Your task to perform on an android device: Search for 8K TVs on Best Buy. Image 0: 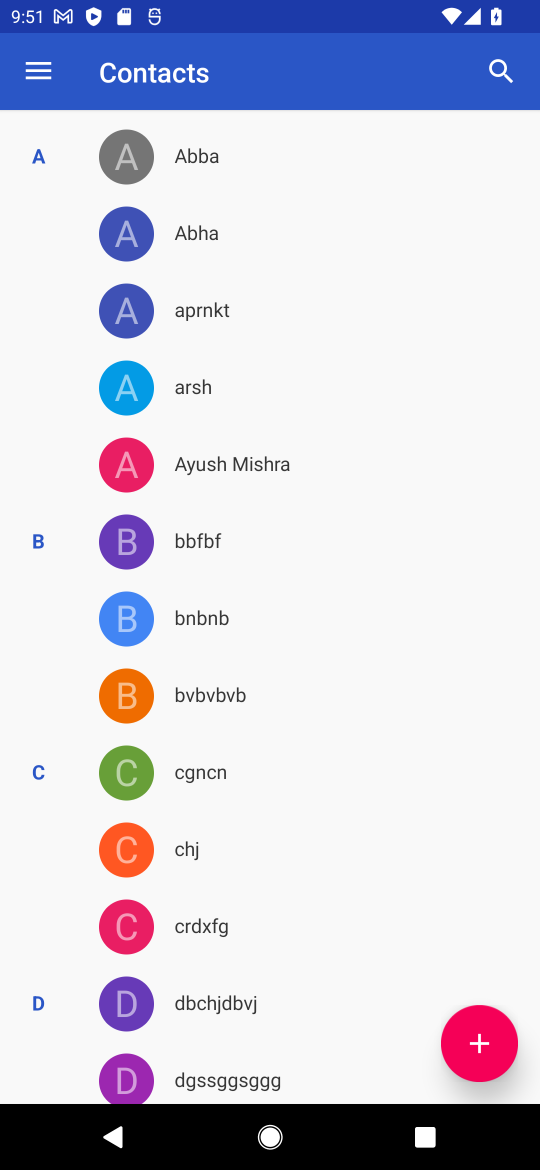
Step 0: press home button
Your task to perform on an android device: Search for 8K TVs on Best Buy. Image 1: 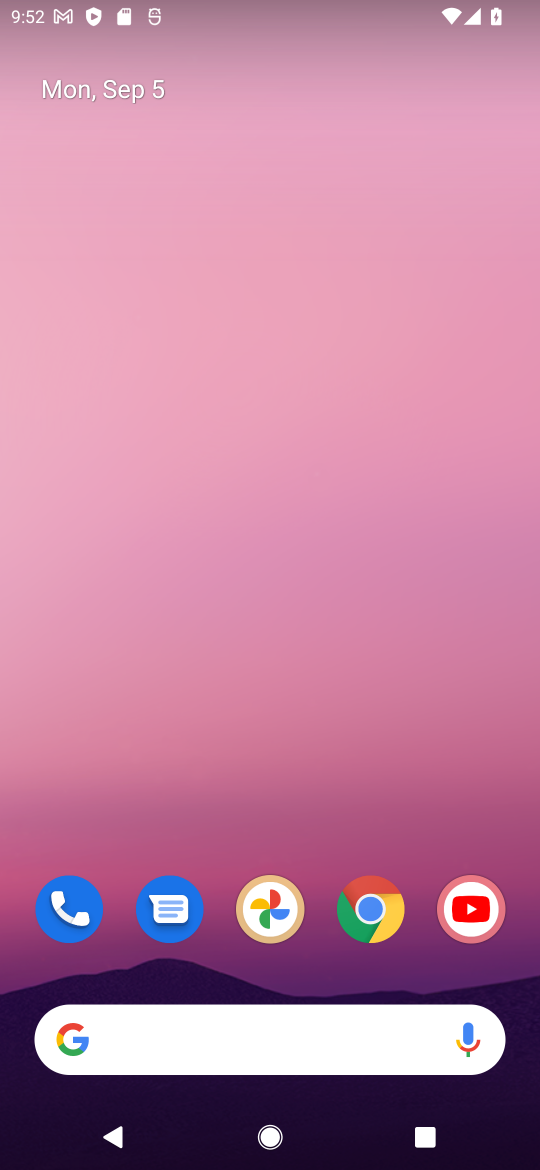
Step 1: click (373, 920)
Your task to perform on an android device: Search for 8K TVs on Best Buy. Image 2: 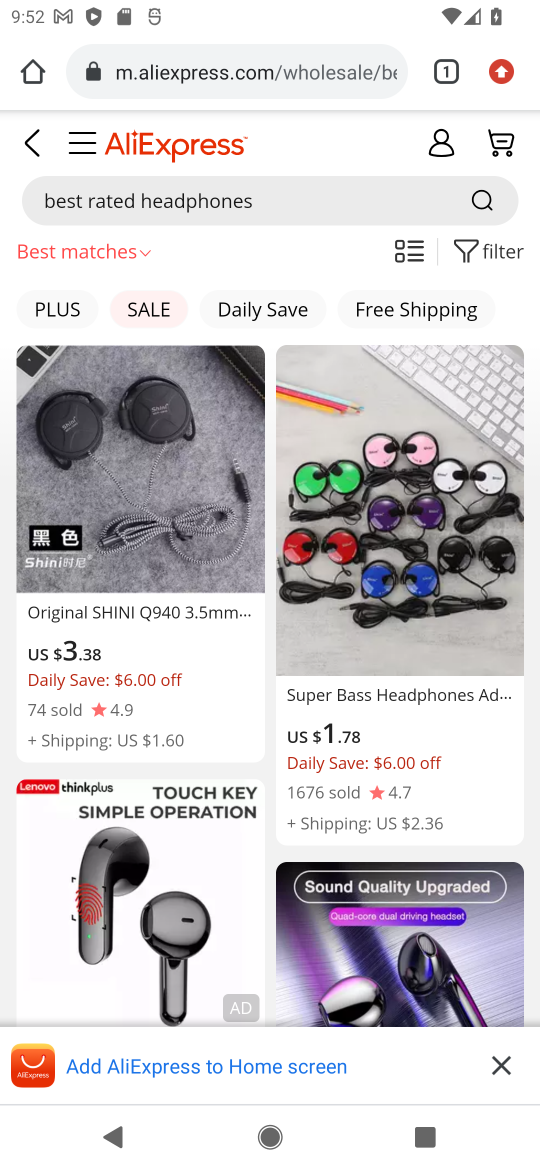
Step 2: click (232, 69)
Your task to perform on an android device: Search for 8K TVs on Best Buy. Image 3: 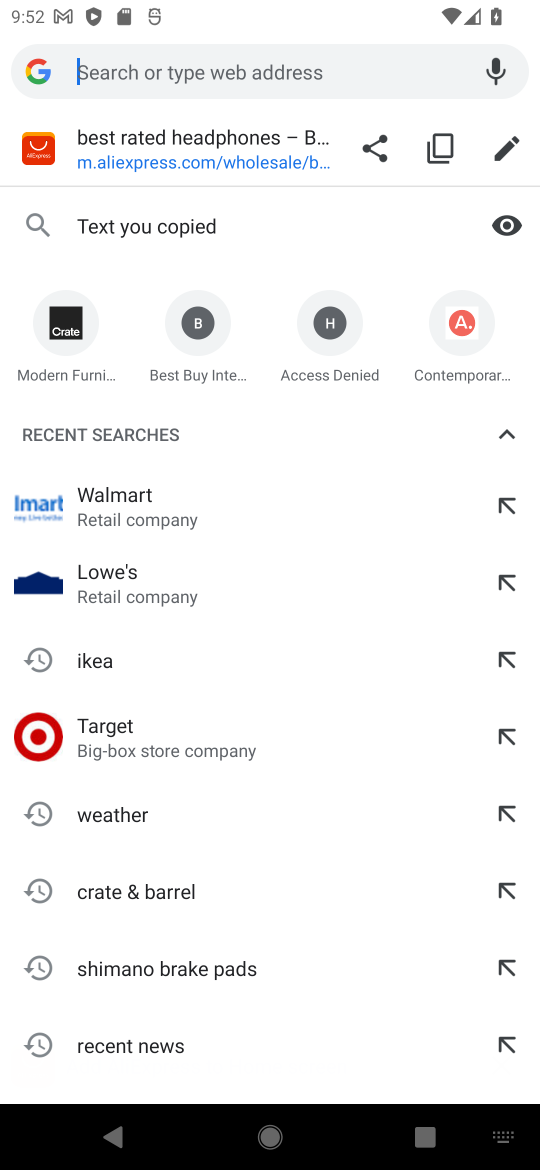
Step 3: click (358, 80)
Your task to perform on an android device: Search for 8K TVs on Best Buy. Image 4: 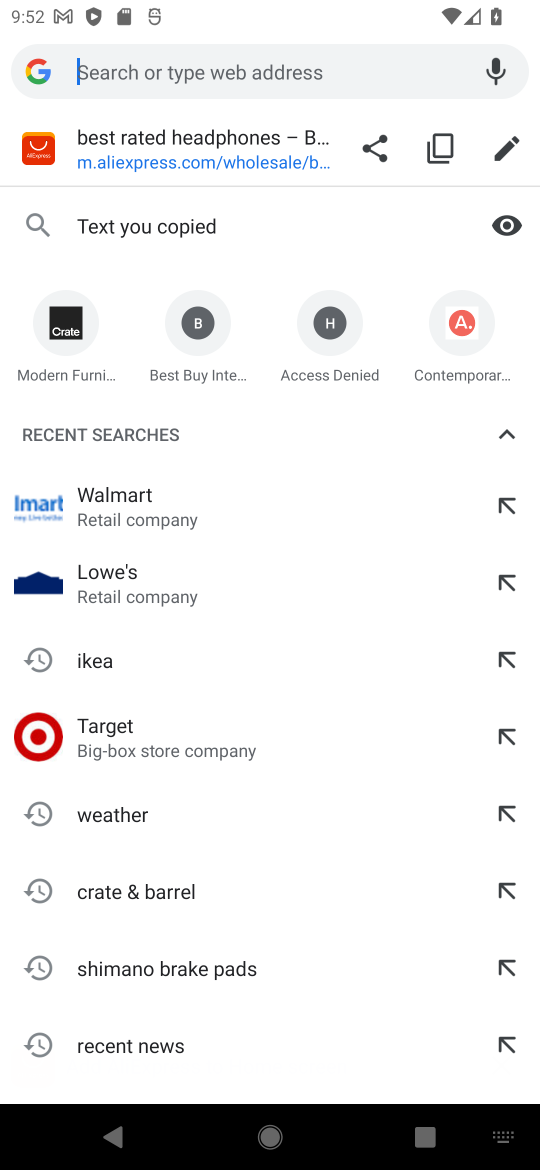
Step 4: type "bestbuy"
Your task to perform on an android device: Search for 8K TVs on Best Buy. Image 5: 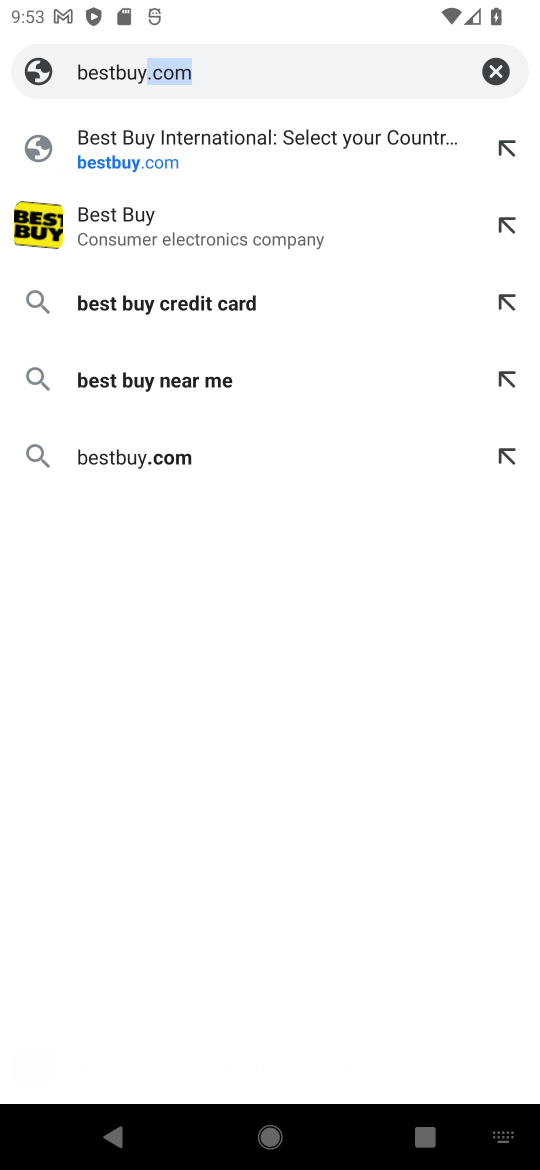
Step 5: click (288, 118)
Your task to perform on an android device: Search for 8K TVs on Best Buy. Image 6: 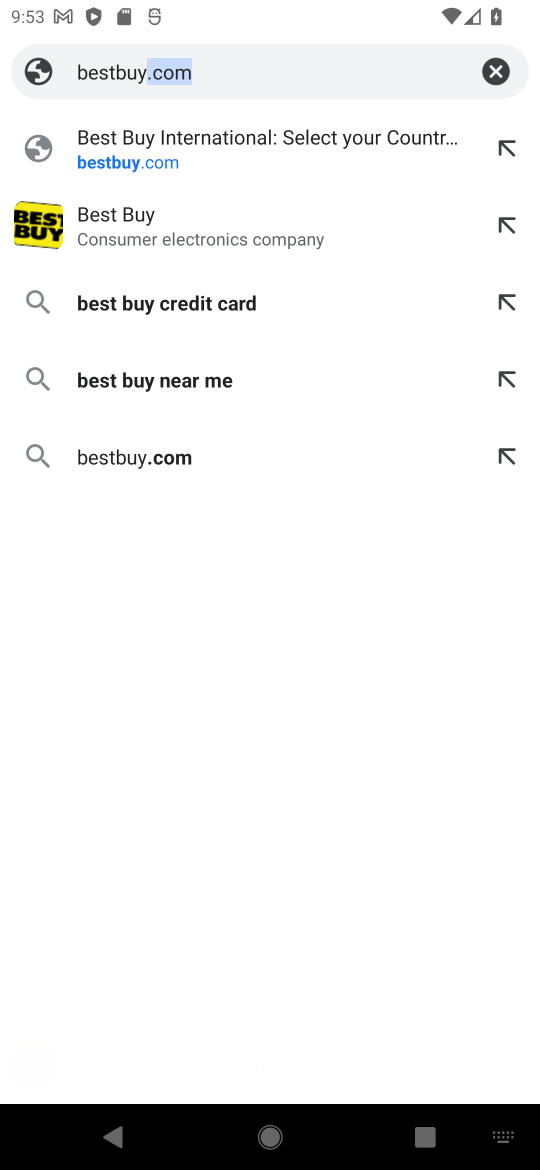
Step 6: click (244, 136)
Your task to perform on an android device: Search for 8K TVs on Best Buy. Image 7: 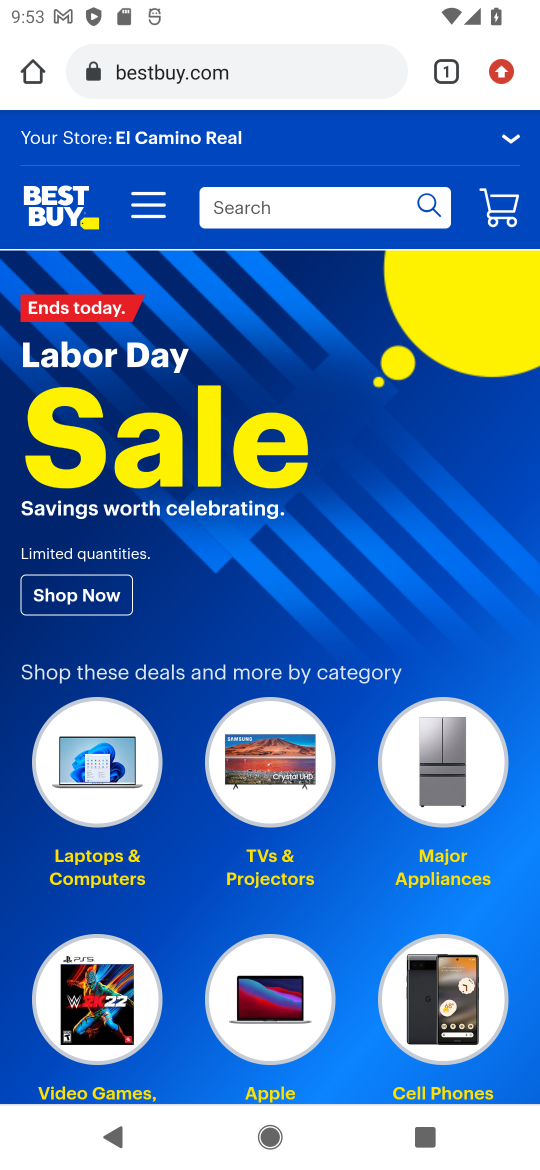
Step 7: click (282, 207)
Your task to perform on an android device: Search for 8K TVs on Best Buy. Image 8: 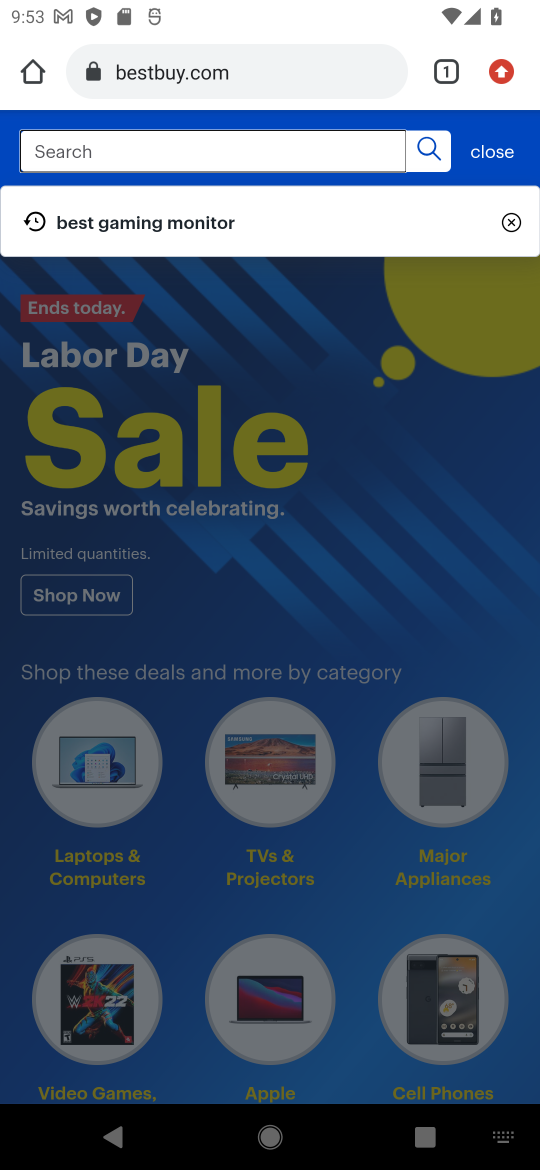
Step 8: type "8k tvs"
Your task to perform on an android device: Search for 8K TVs on Best Buy. Image 9: 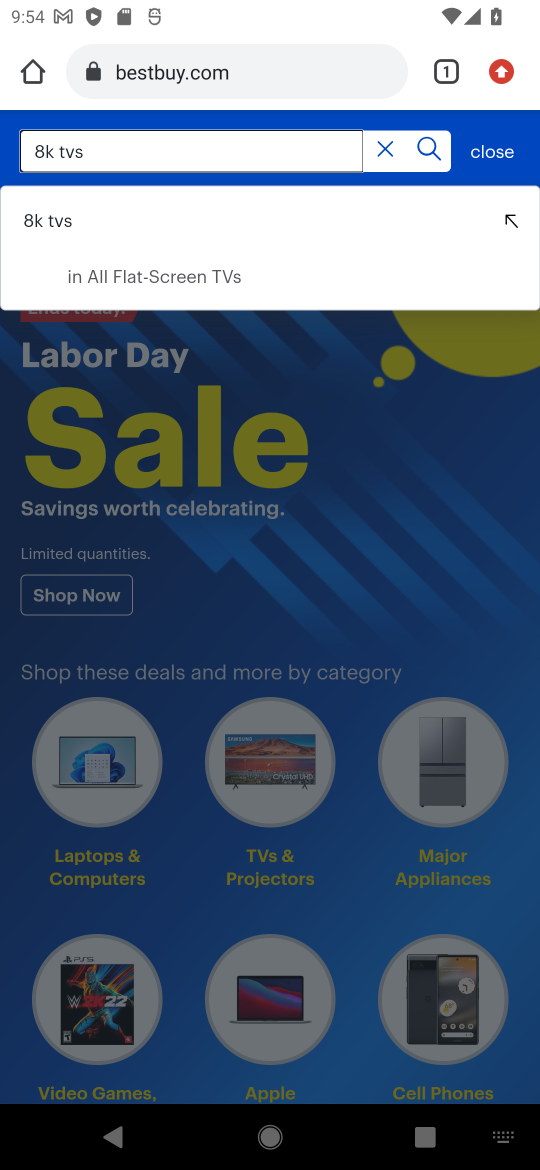
Step 9: type "fkjl"
Your task to perform on an android device: Search for 8K TVs on Best Buy. Image 10: 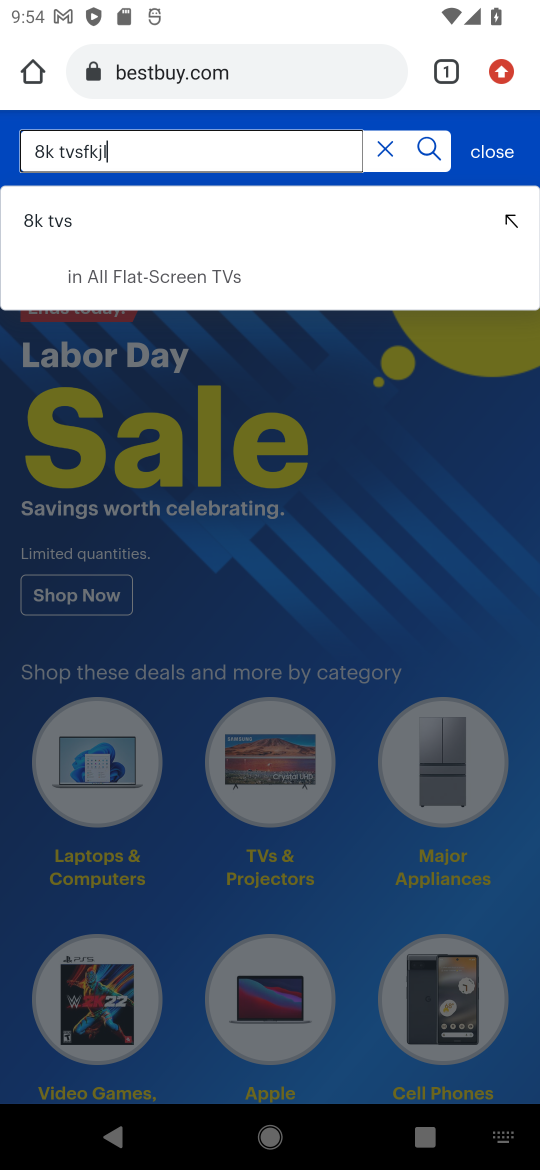
Step 10: click (312, 214)
Your task to perform on an android device: Search for 8K TVs on Best Buy. Image 11: 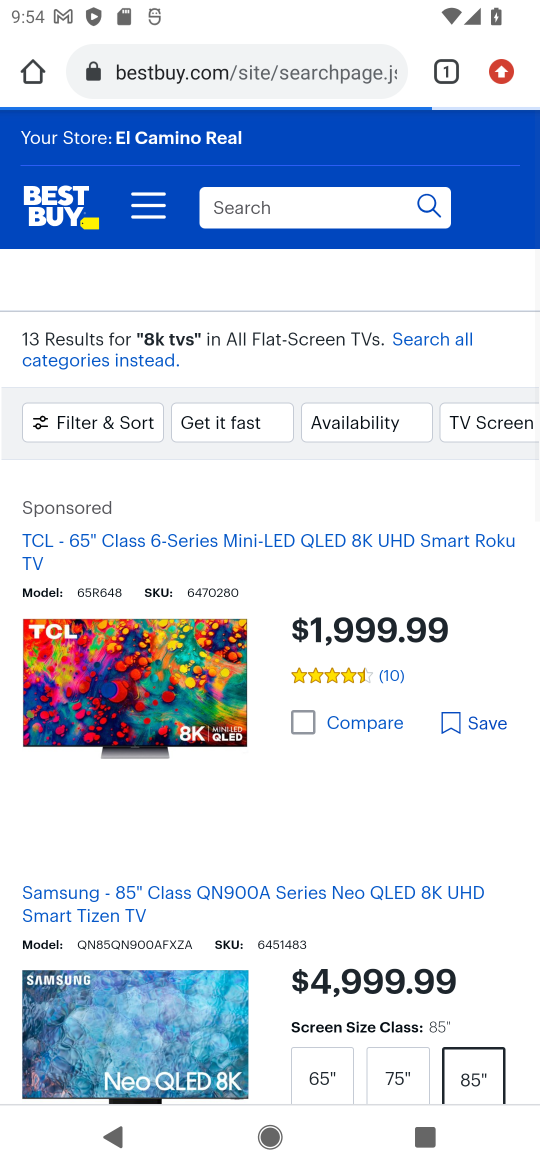
Step 11: press enter
Your task to perform on an android device: Search for 8K TVs on Best Buy. Image 12: 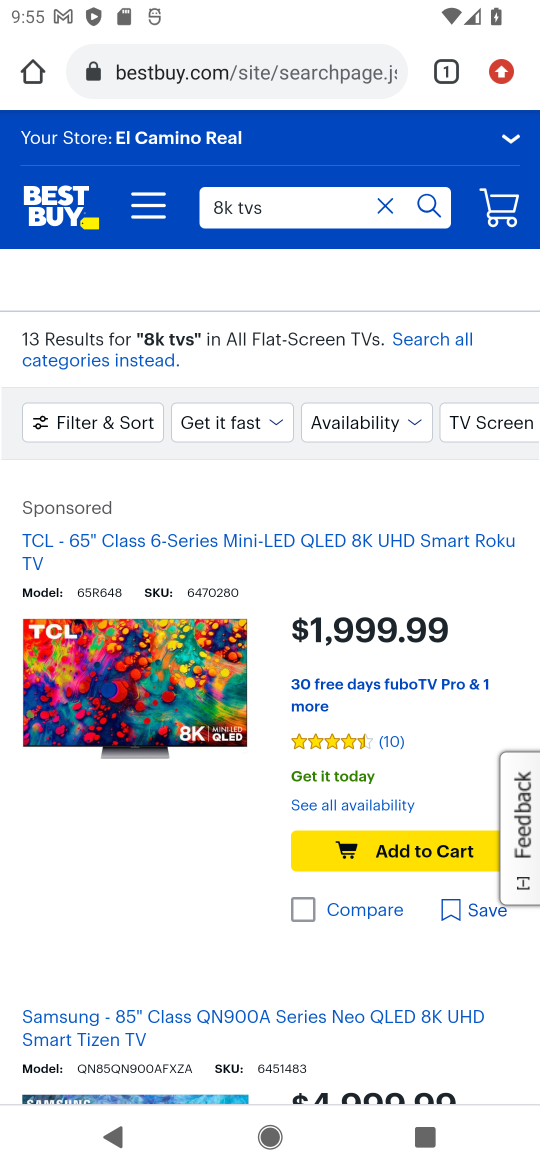
Step 12: task complete